Your task to perform on an android device: turn on improve location accuracy Image 0: 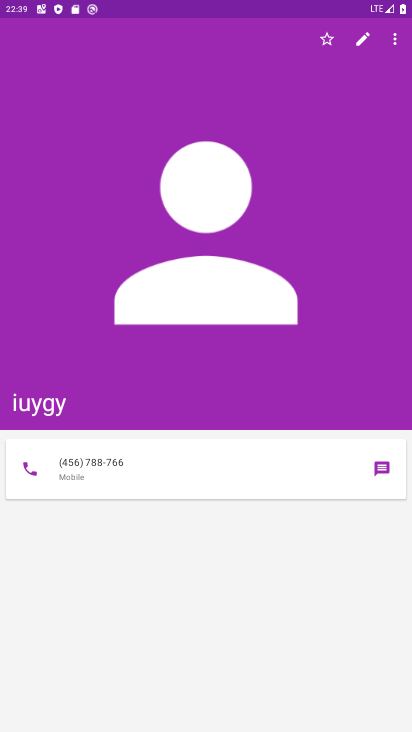
Step 0: press home button
Your task to perform on an android device: turn on improve location accuracy Image 1: 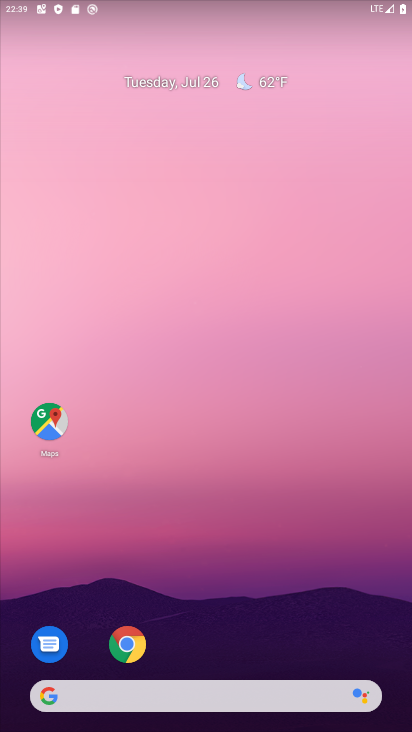
Step 1: drag from (260, 658) to (232, 60)
Your task to perform on an android device: turn on improve location accuracy Image 2: 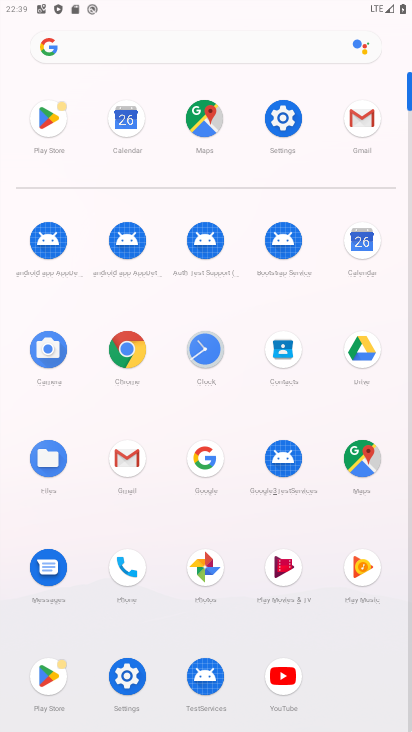
Step 2: click (282, 116)
Your task to perform on an android device: turn on improve location accuracy Image 3: 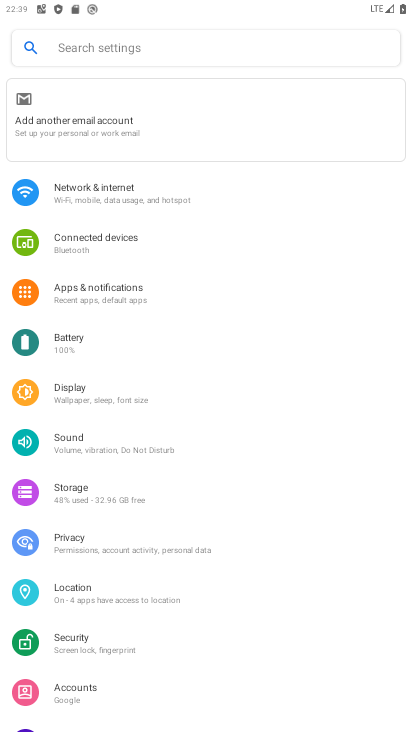
Step 3: click (74, 592)
Your task to perform on an android device: turn on improve location accuracy Image 4: 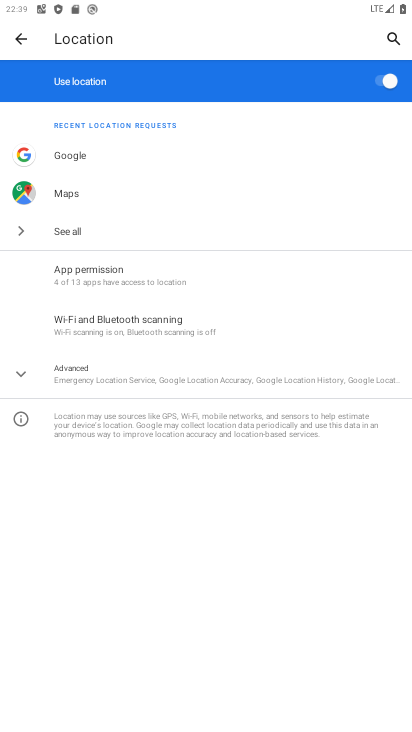
Step 4: click (21, 381)
Your task to perform on an android device: turn on improve location accuracy Image 5: 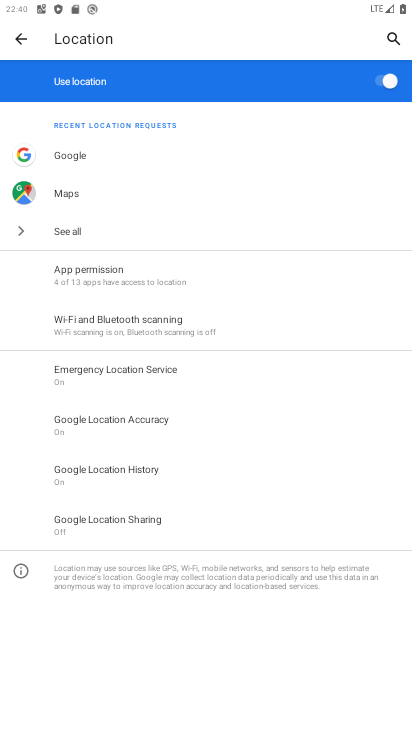
Step 5: click (89, 428)
Your task to perform on an android device: turn on improve location accuracy Image 6: 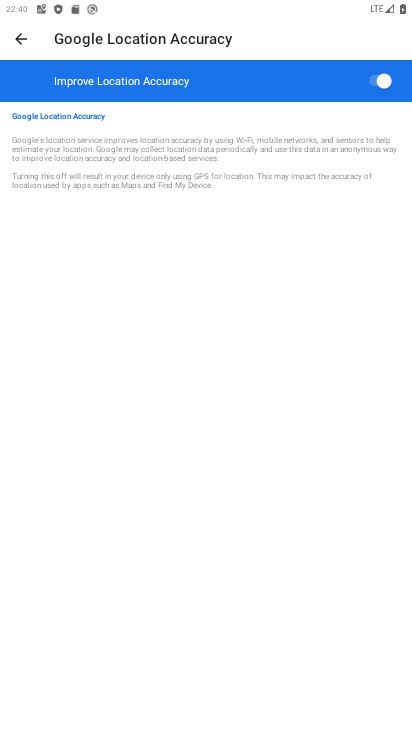
Step 6: task complete